Your task to perform on an android device: Open calendar and show me the first week of next month Image 0: 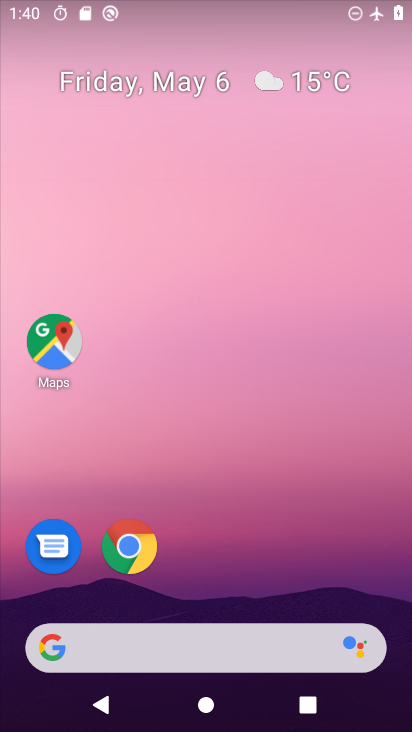
Step 0: drag from (285, 562) to (325, 155)
Your task to perform on an android device: Open calendar and show me the first week of next month Image 1: 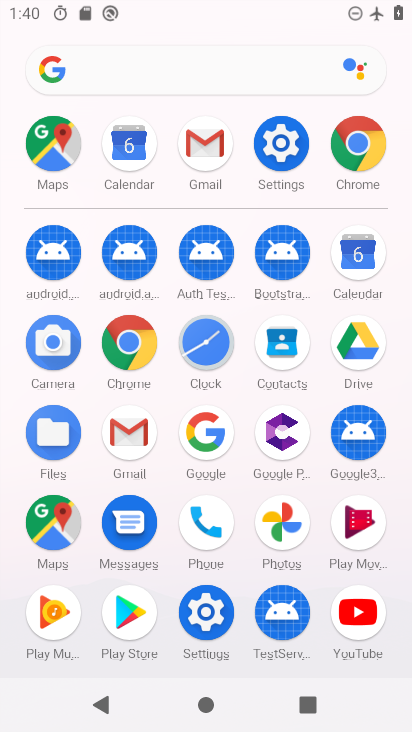
Step 1: click (366, 269)
Your task to perform on an android device: Open calendar and show me the first week of next month Image 2: 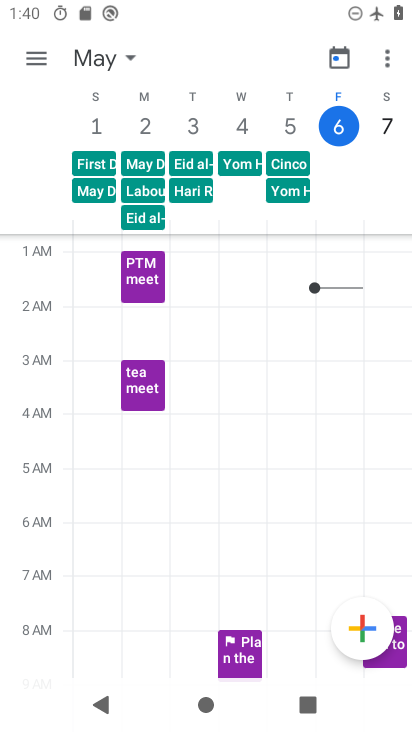
Step 2: click (128, 55)
Your task to perform on an android device: Open calendar and show me the first week of next month Image 3: 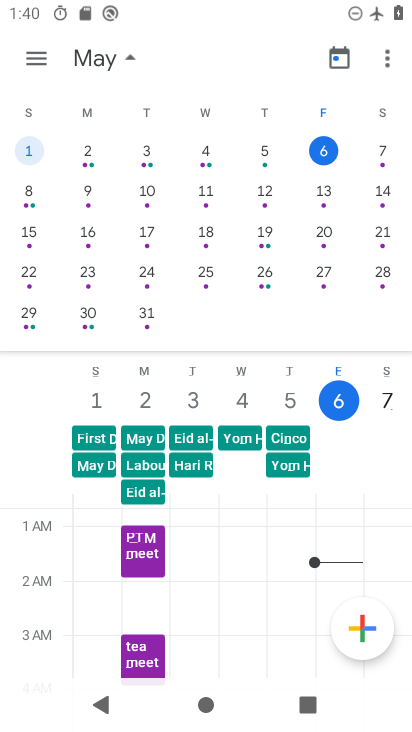
Step 3: drag from (372, 234) to (1, 182)
Your task to perform on an android device: Open calendar and show me the first week of next month Image 4: 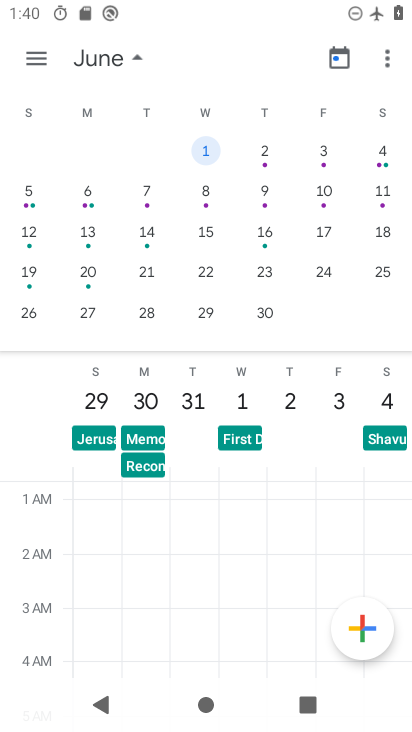
Step 4: click (262, 150)
Your task to perform on an android device: Open calendar and show me the first week of next month Image 5: 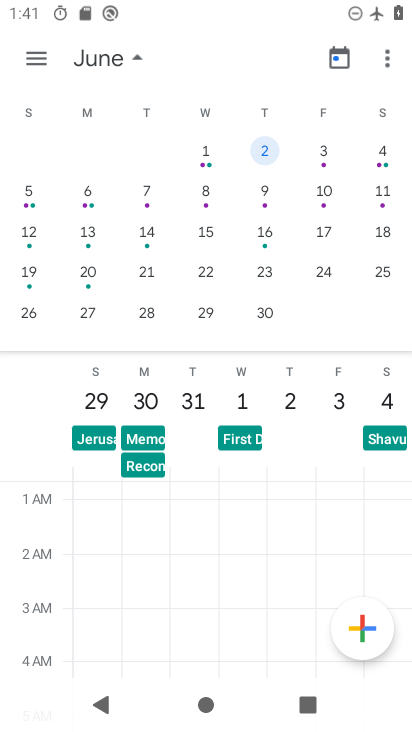
Step 5: task complete